Your task to perform on an android device: Find coffee shops on Maps Image 0: 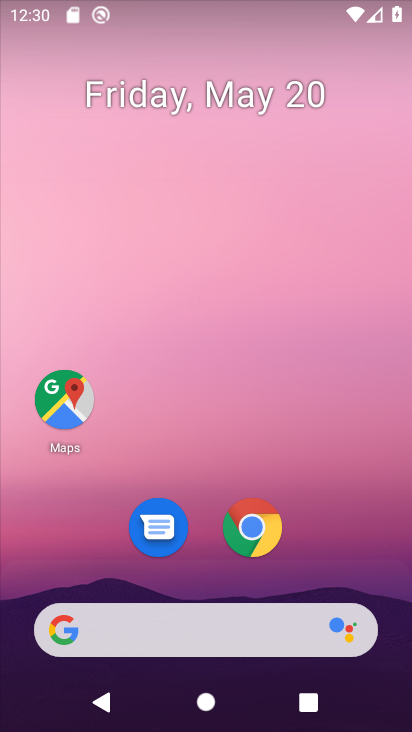
Step 0: drag from (237, 667) to (167, 107)
Your task to perform on an android device: Find coffee shops on Maps Image 1: 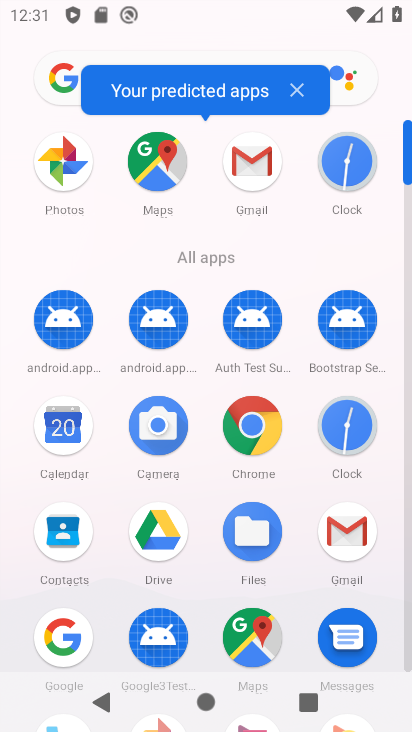
Step 1: click (149, 186)
Your task to perform on an android device: Find coffee shops on Maps Image 2: 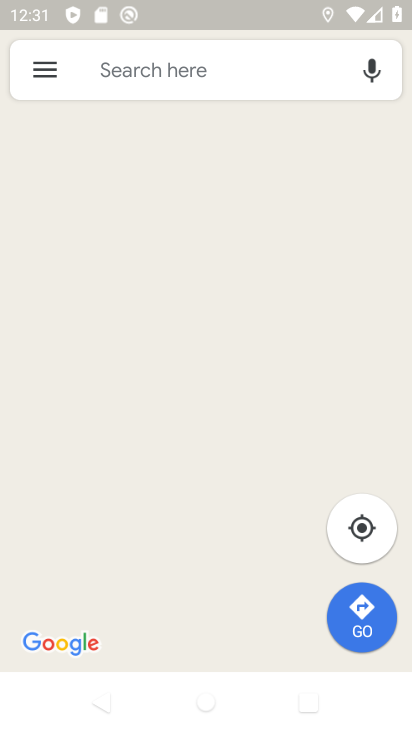
Step 2: click (144, 83)
Your task to perform on an android device: Find coffee shops on Maps Image 3: 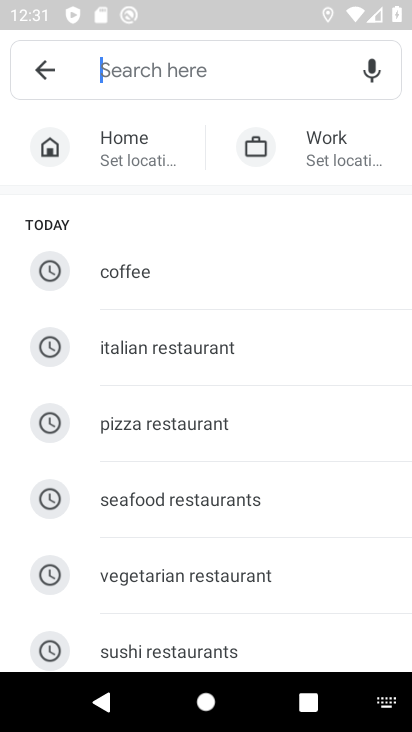
Step 3: click (153, 260)
Your task to perform on an android device: Find coffee shops on Maps Image 4: 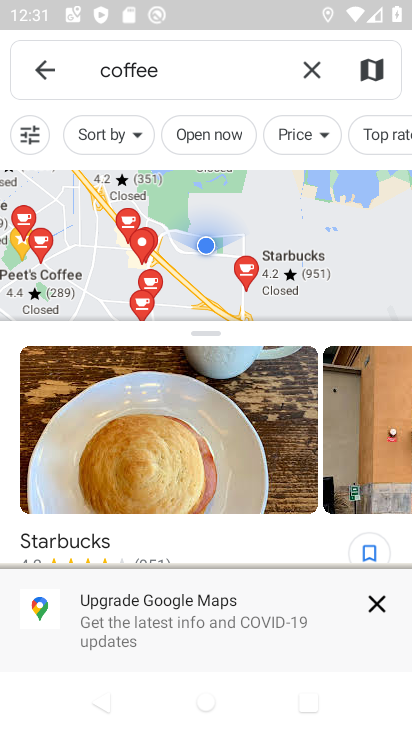
Step 4: click (382, 603)
Your task to perform on an android device: Find coffee shops on Maps Image 5: 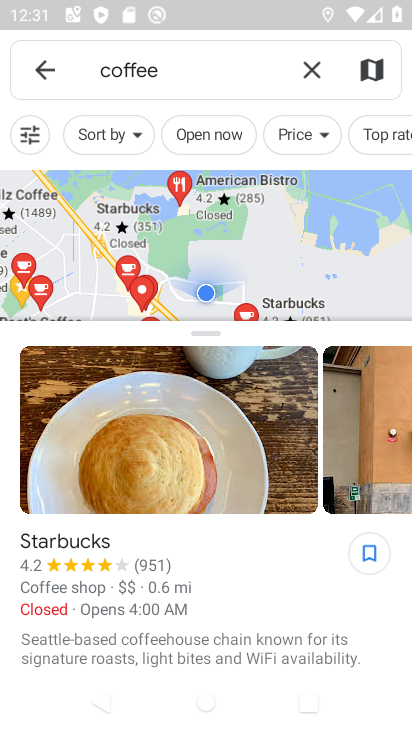
Step 5: click (112, 297)
Your task to perform on an android device: Find coffee shops on Maps Image 6: 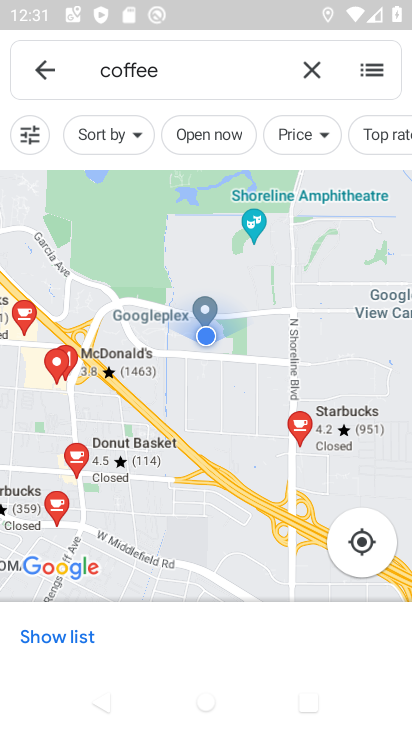
Step 6: task complete